Your task to perform on an android device: check android version Image 0: 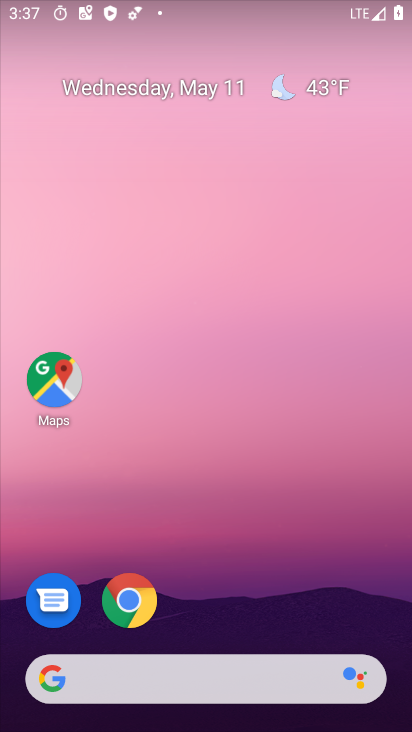
Step 0: drag from (327, 627) to (368, 19)
Your task to perform on an android device: check android version Image 1: 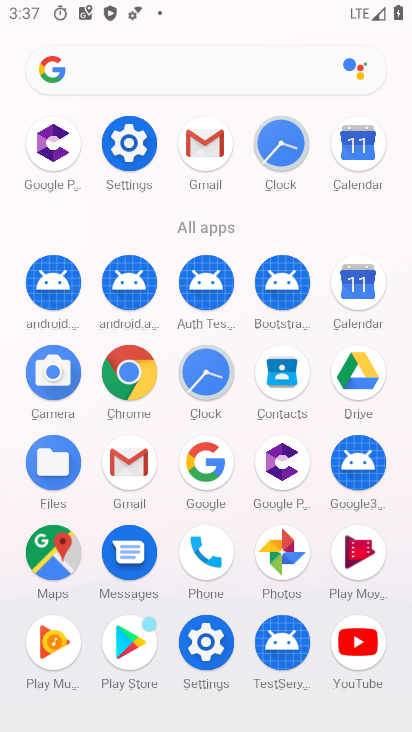
Step 1: click (119, 148)
Your task to perform on an android device: check android version Image 2: 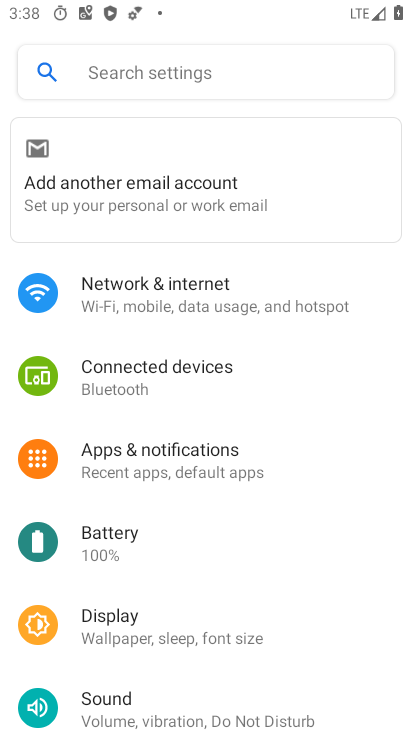
Step 2: drag from (306, 619) to (310, 76)
Your task to perform on an android device: check android version Image 3: 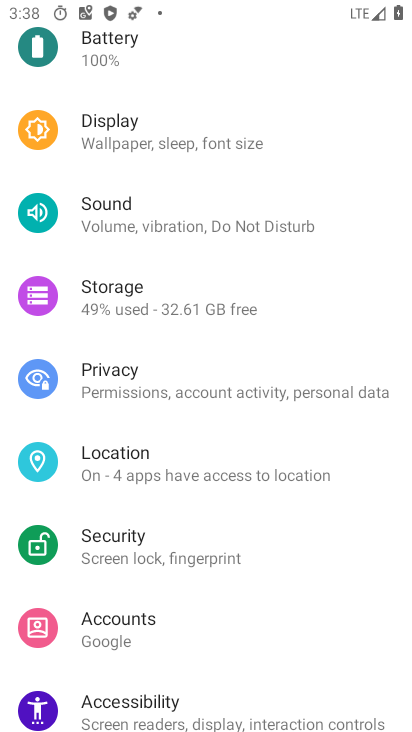
Step 3: drag from (259, 598) to (273, 143)
Your task to perform on an android device: check android version Image 4: 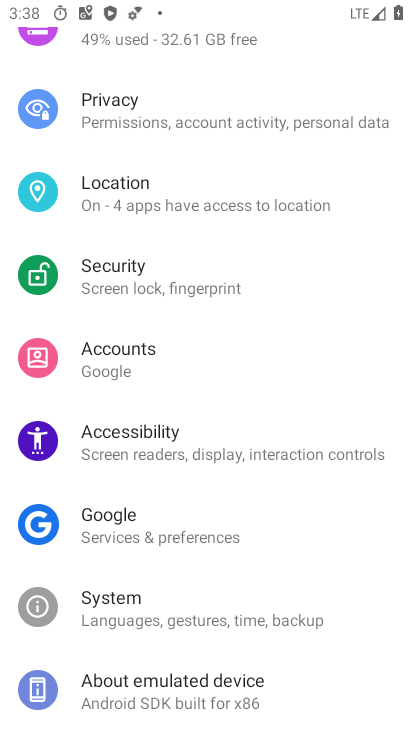
Step 4: click (160, 691)
Your task to perform on an android device: check android version Image 5: 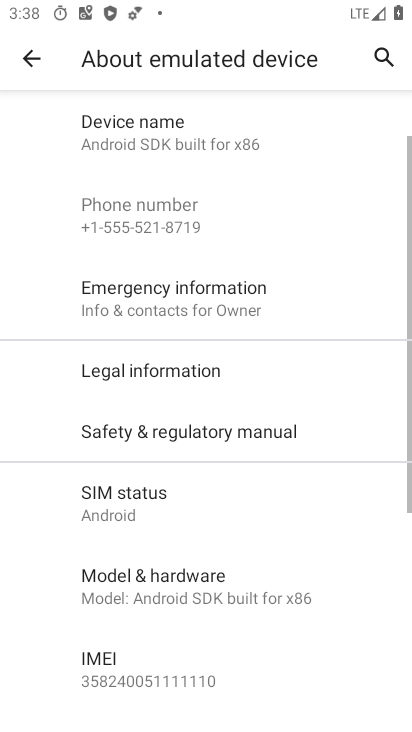
Step 5: drag from (259, 657) to (269, 185)
Your task to perform on an android device: check android version Image 6: 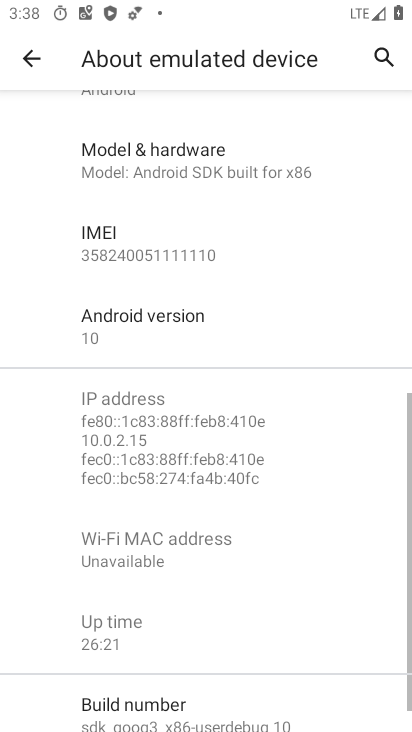
Step 6: click (126, 329)
Your task to perform on an android device: check android version Image 7: 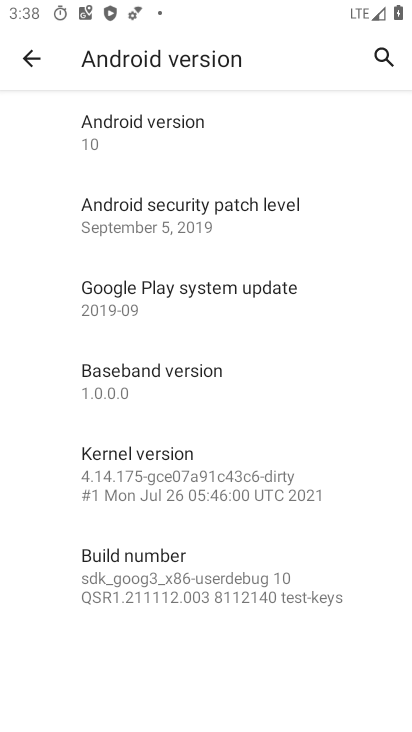
Step 7: task complete